Your task to perform on an android device: Check the weather Image 0: 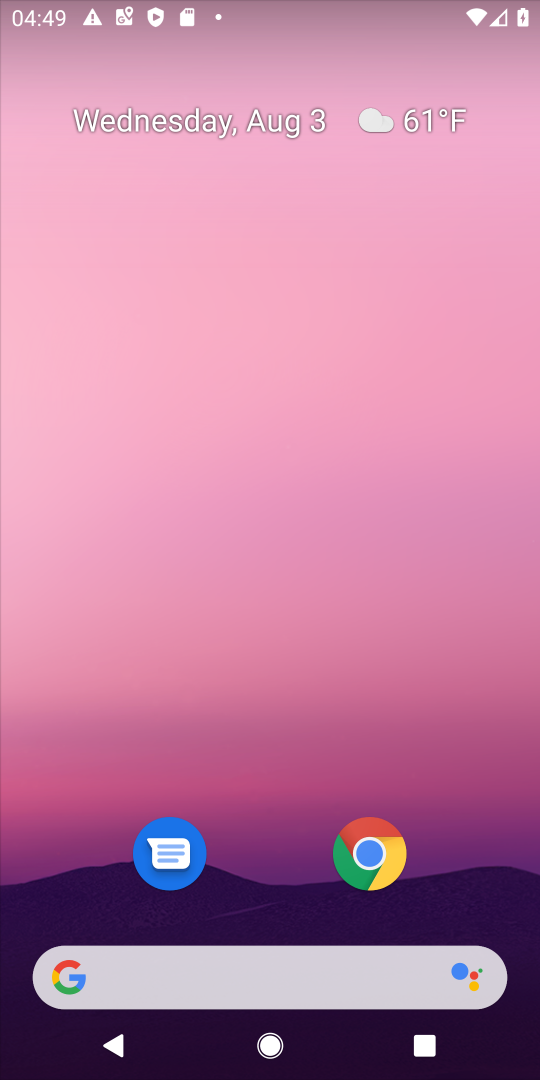
Step 0: click (371, 126)
Your task to perform on an android device: Check the weather Image 1: 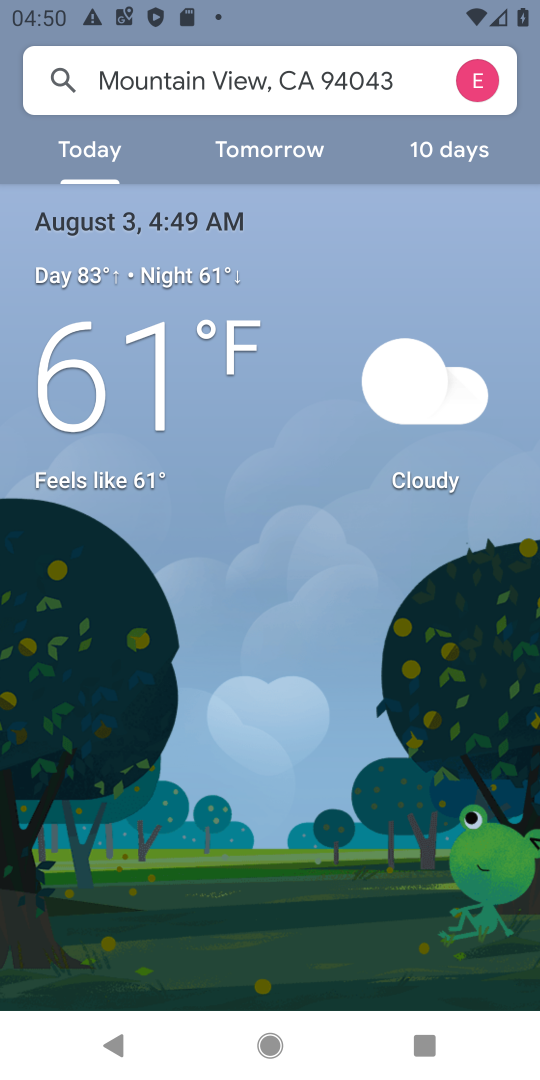
Step 1: task complete